Your task to perform on an android device: set an alarm Image 0: 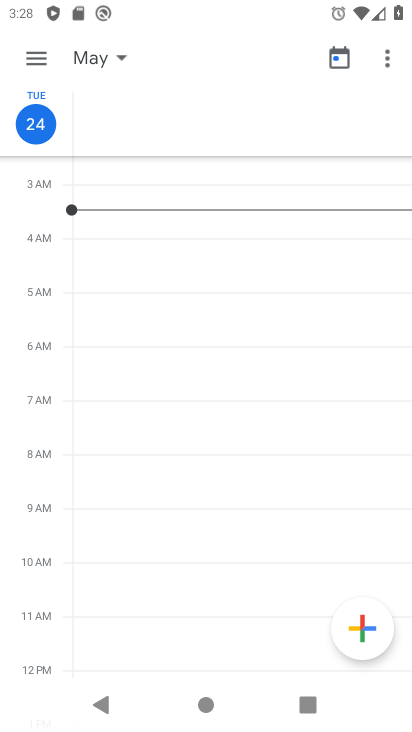
Step 0: drag from (251, 472) to (221, 261)
Your task to perform on an android device: set an alarm Image 1: 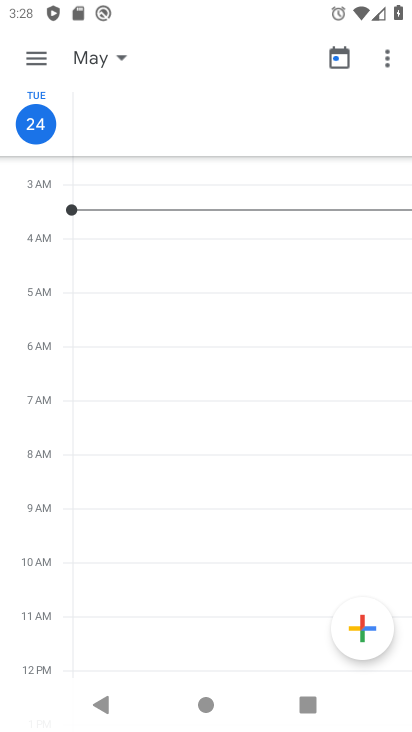
Step 1: press back button
Your task to perform on an android device: set an alarm Image 2: 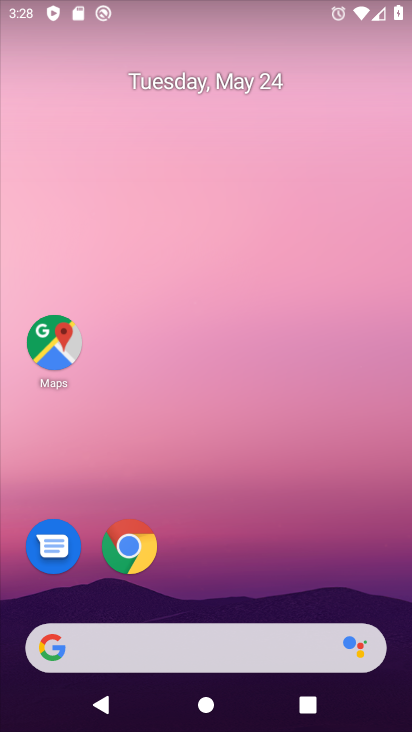
Step 2: drag from (262, 642) to (167, 170)
Your task to perform on an android device: set an alarm Image 3: 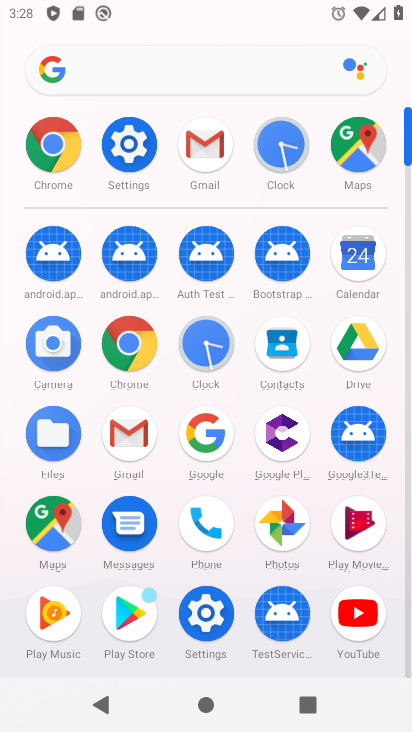
Step 3: click (206, 348)
Your task to perform on an android device: set an alarm Image 4: 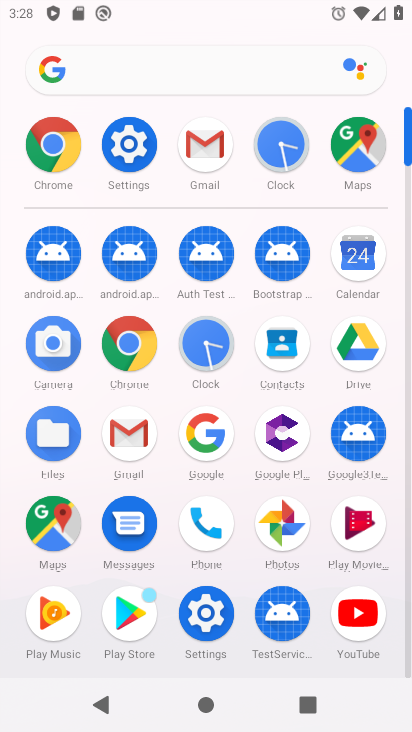
Step 4: click (213, 336)
Your task to perform on an android device: set an alarm Image 5: 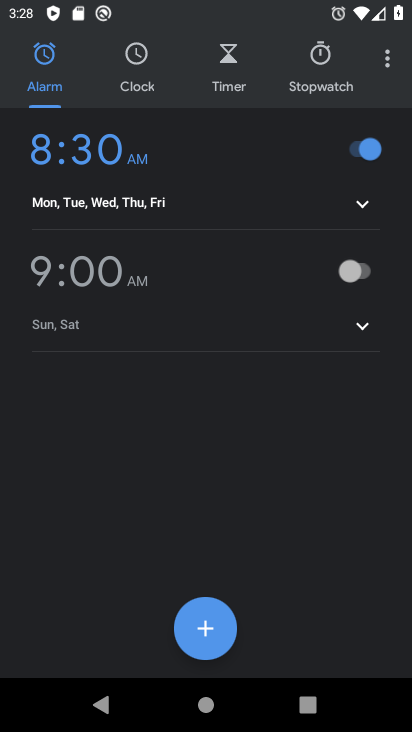
Step 5: click (341, 277)
Your task to perform on an android device: set an alarm Image 6: 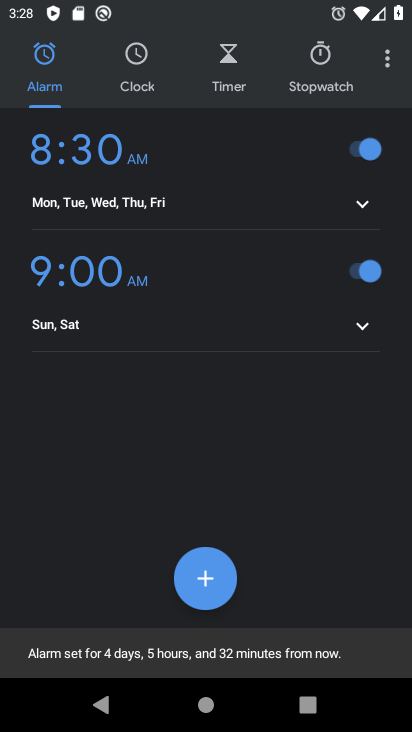
Step 6: task complete